Your task to perform on an android device: open app "Google Drive" (install if not already installed) Image 0: 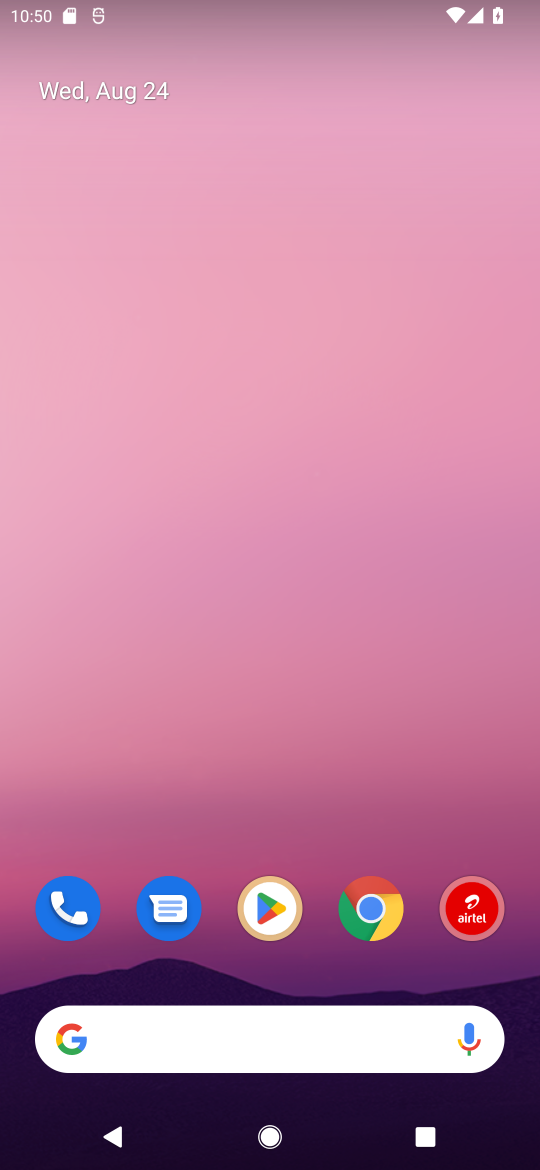
Step 0: click (252, 934)
Your task to perform on an android device: open app "Google Drive" (install if not already installed) Image 1: 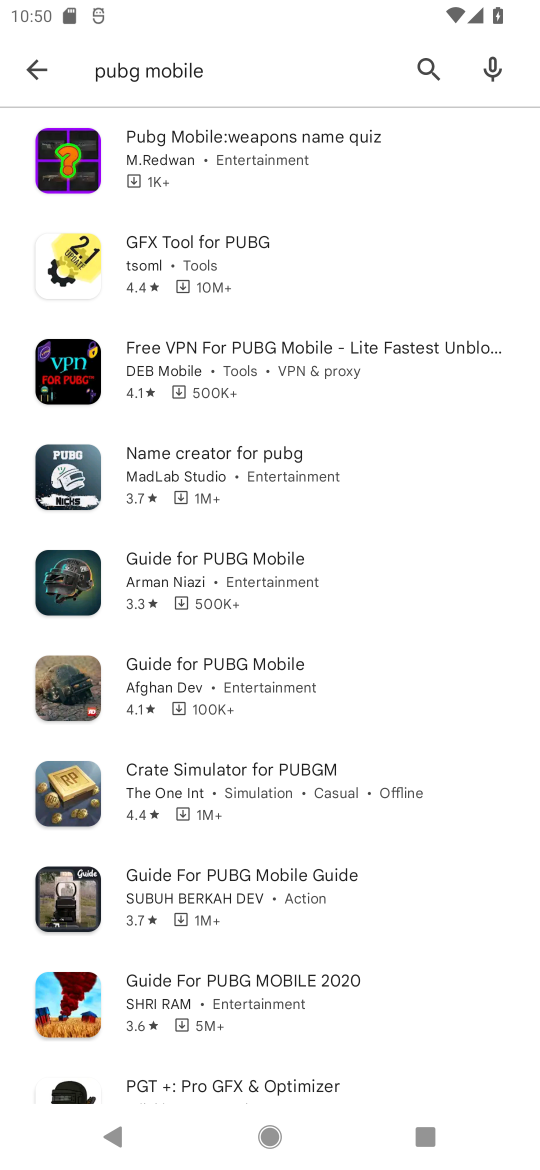
Step 1: click (19, 71)
Your task to perform on an android device: open app "Google Drive" (install if not already installed) Image 2: 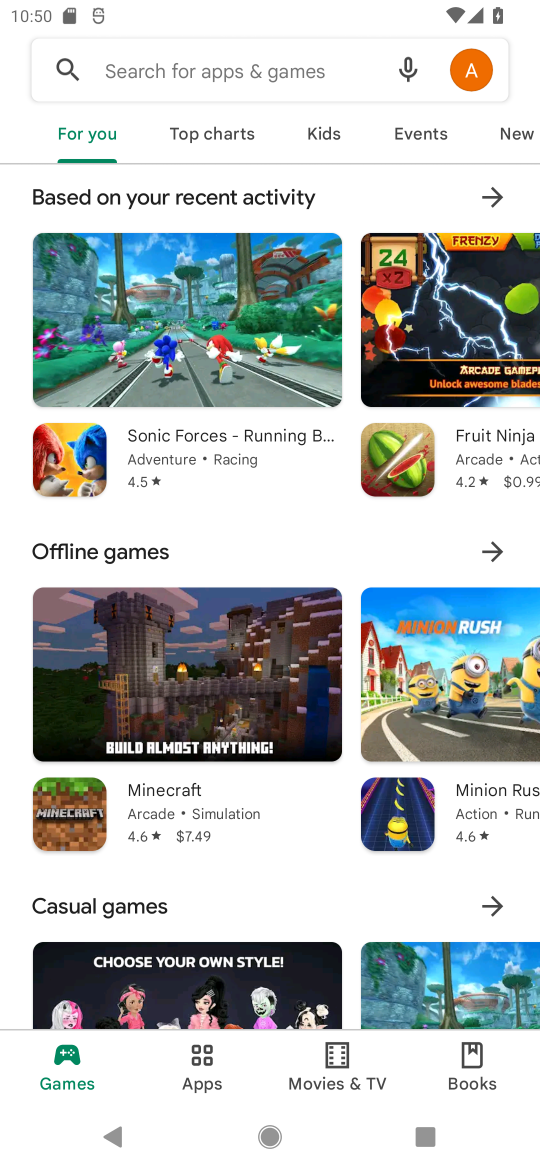
Step 2: click (175, 76)
Your task to perform on an android device: open app "Google Drive" (install if not already installed) Image 3: 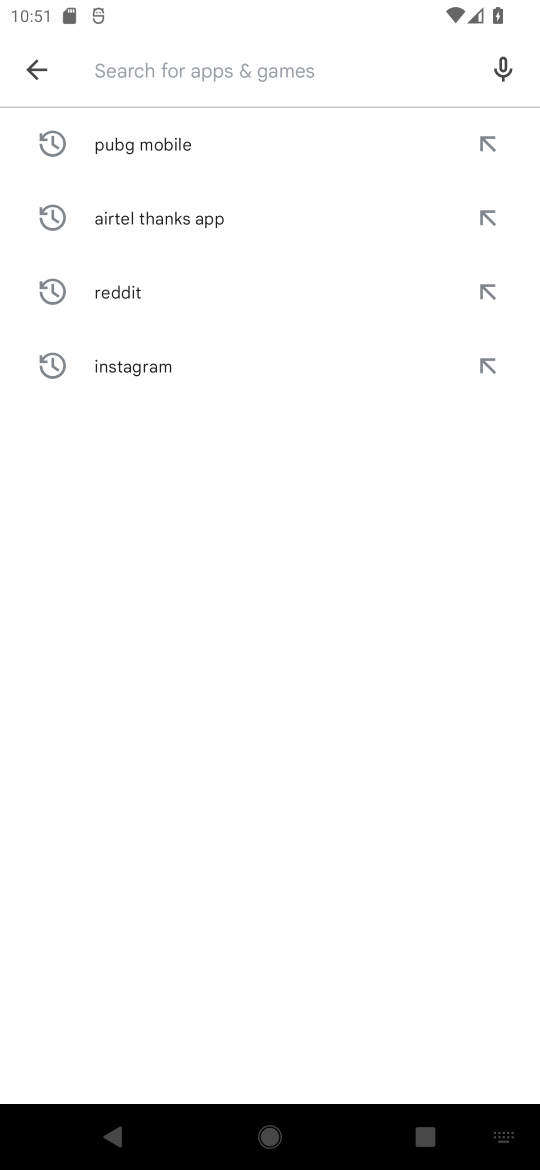
Step 3: type "Google Drive"
Your task to perform on an android device: open app "Google Drive" (install if not already installed) Image 4: 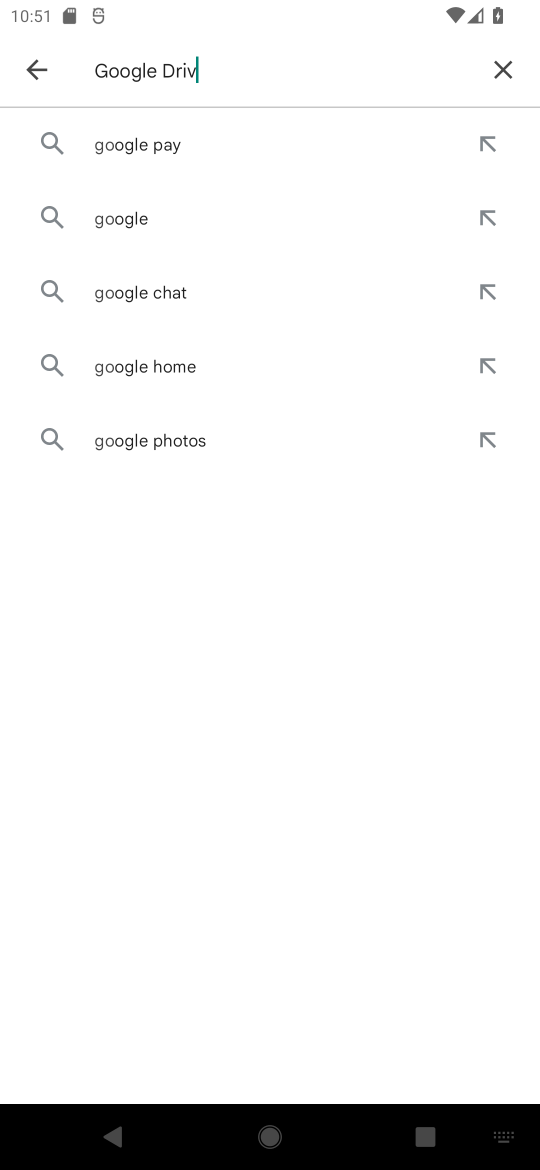
Step 4: type ""
Your task to perform on an android device: open app "Google Drive" (install if not already installed) Image 5: 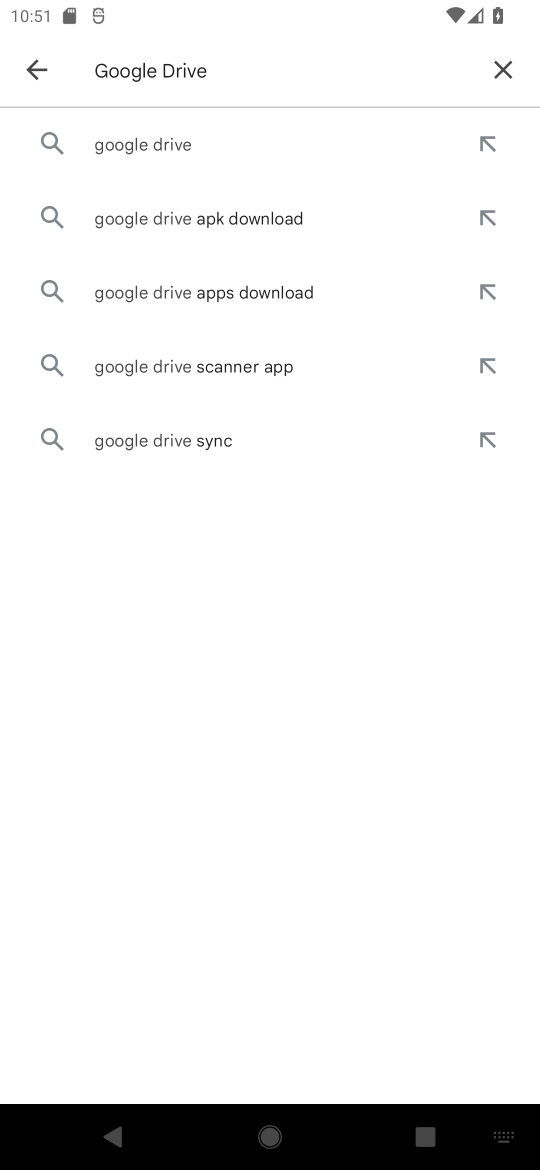
Step 5: type ""
Your task to perform on an android device: open app "Google Drive" (install if not already installed) Image 6: 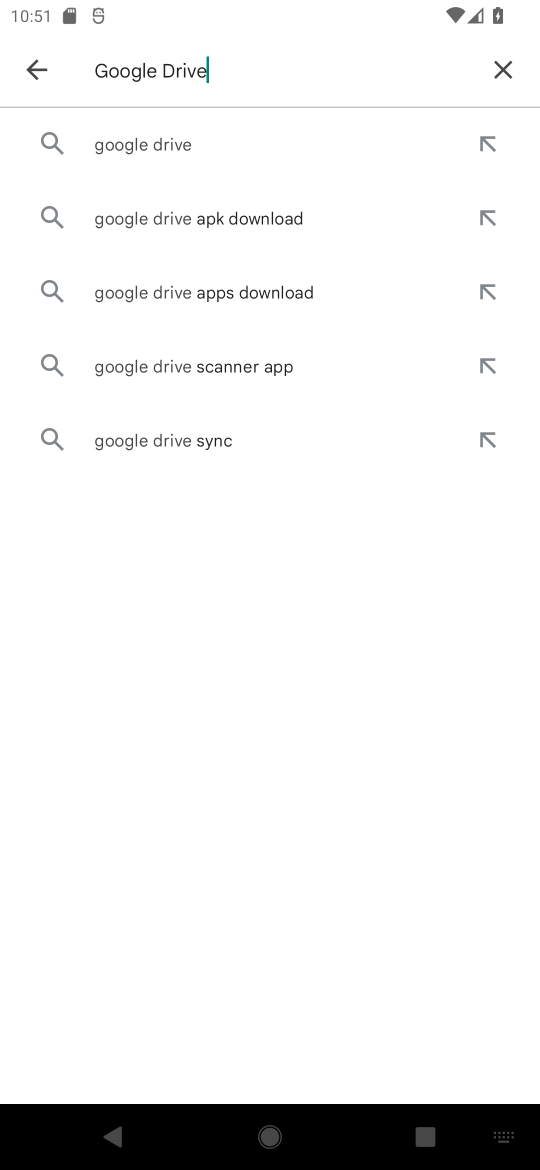
Step 6: click (264, 145)
Your task to perform on an android device: open app "Google Drive" (install if not already installed) Image 7: 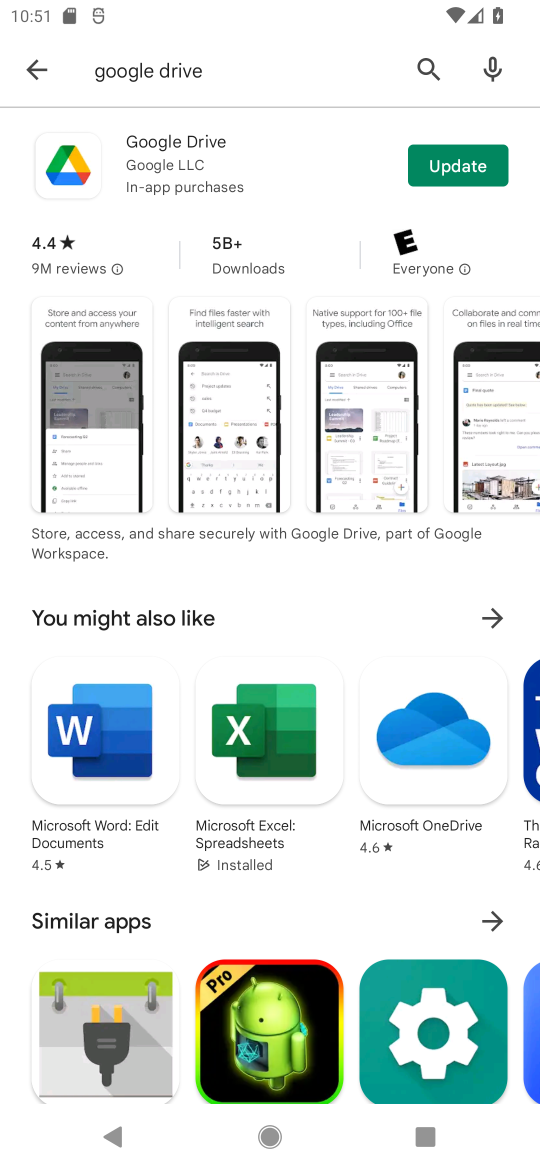
Step 7: click (495, 157)
Your task to perform on an android device: open app "Google Drive" (install if not already installed) Image 8: 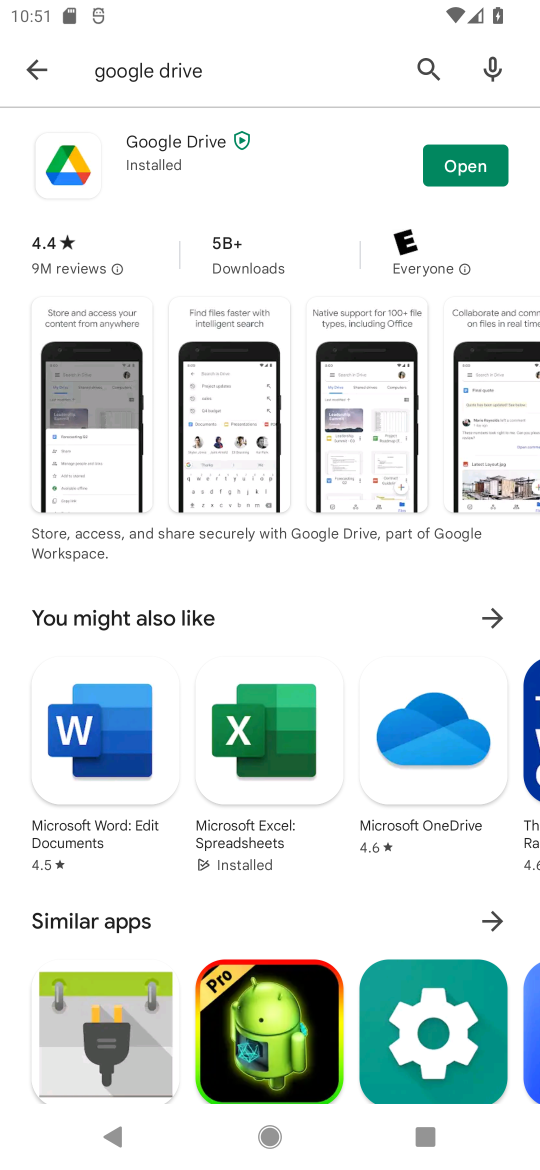
Step 8: click (495, 157)
Your task to perform on an android device: open app "Google Drive" (install if not already installed) Image 9: 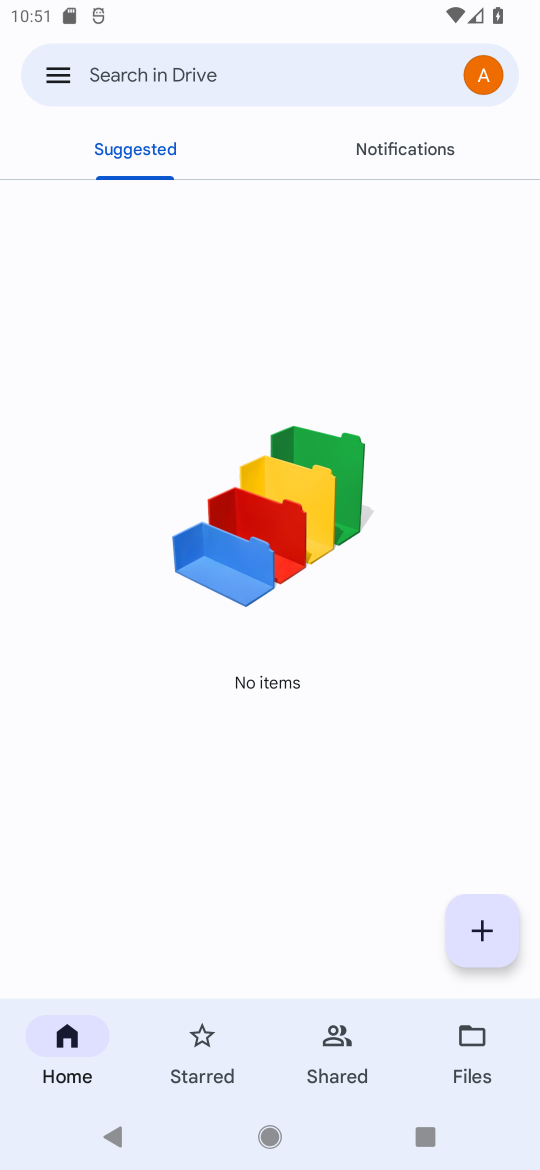
Step 9: task complete